Your task to perform on an android device: Open settings Image 0: 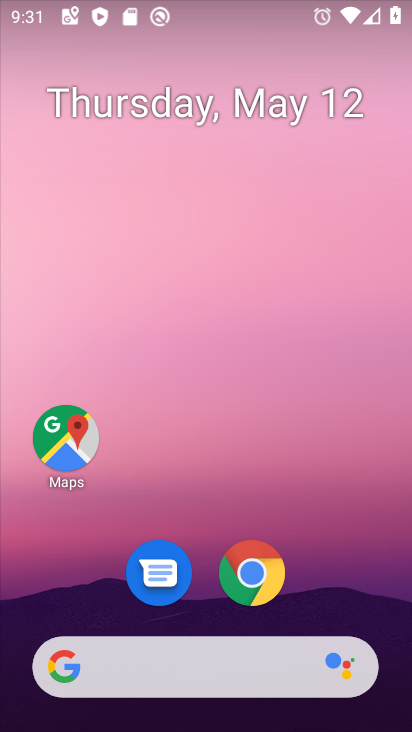
Step 0: drag from (281, 438) to (311, 33)
Your task to perform on an android device: Open settings Image 1: 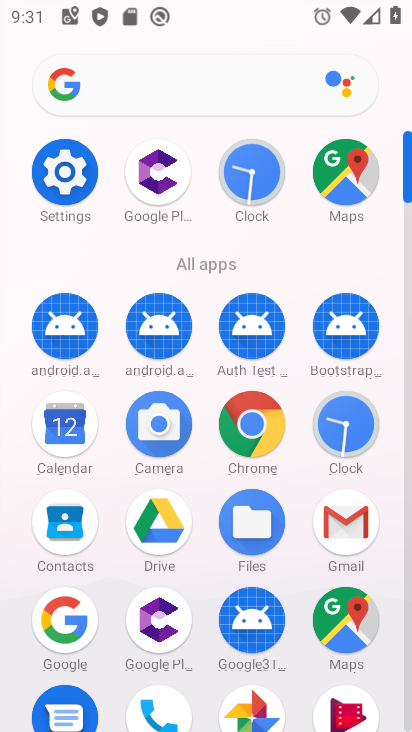
Step 1: click (63, 173)
Your task to perform on an android device: Open settings Image 2: 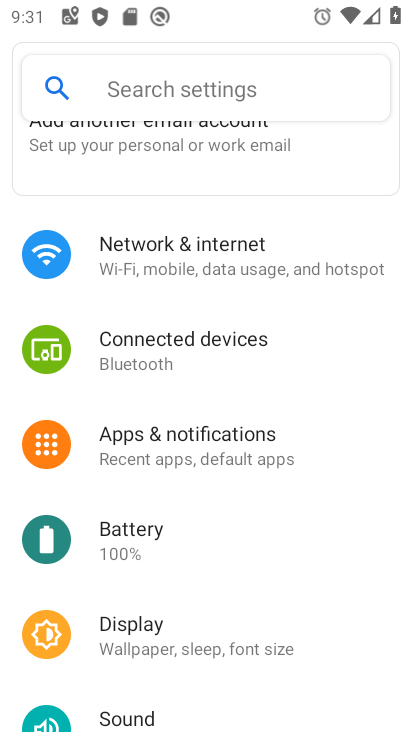
Step 2: task complete